Your task to perform on an android device: Go to Wikipedia Image 0: 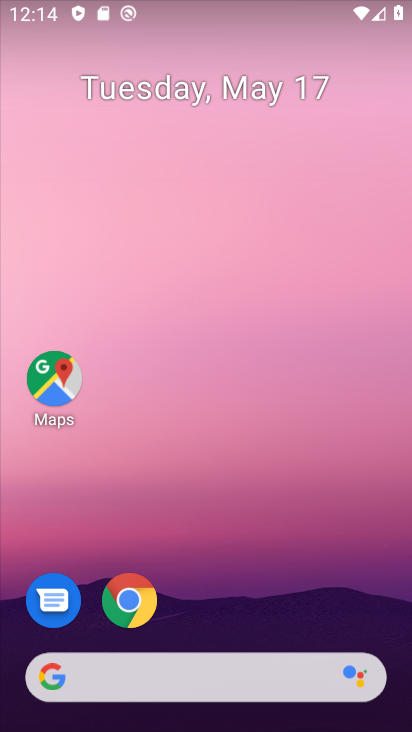
Step 0: click (128, 606)
Your task to perform on an android device: Go to Wikipedia Image 1: 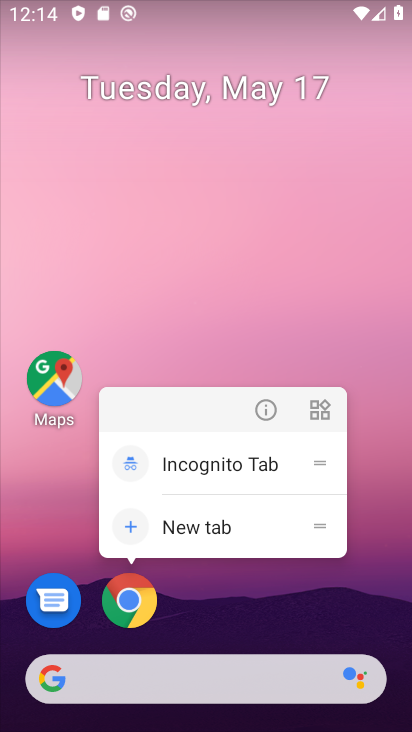
Step 1: click (141, 600)
Your task to perform on an android device: Go to Wikipedia Image 2: 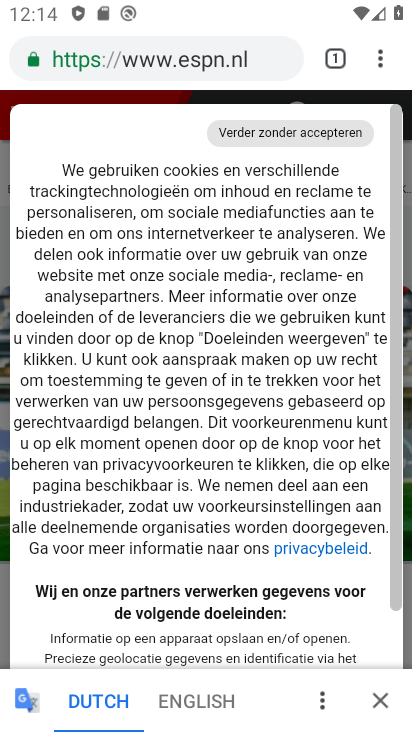
Step 2: press back button
Your task to perform on an android device: Go to Wikipedia Image 3: 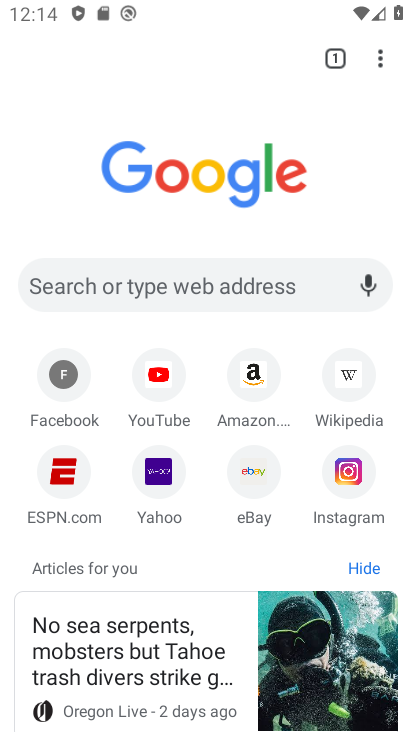
Step 3: click (358, 376)
Your task to perform on an android device: Go to Wikipedia Image 4: 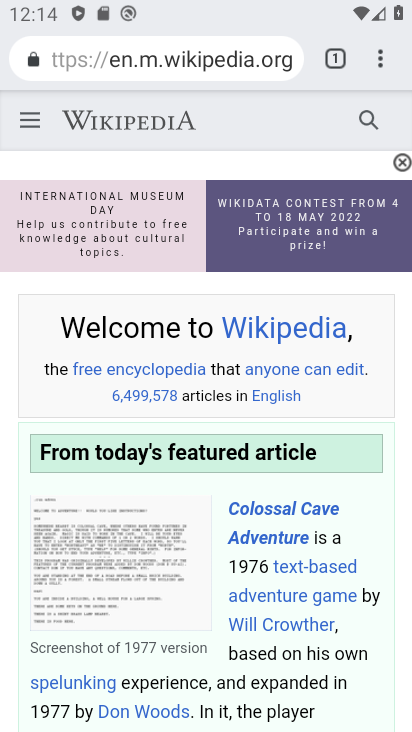
Step 4: task complete